Your task to perform on an android device: allow notifications from all sites in the chrome app Image 0: 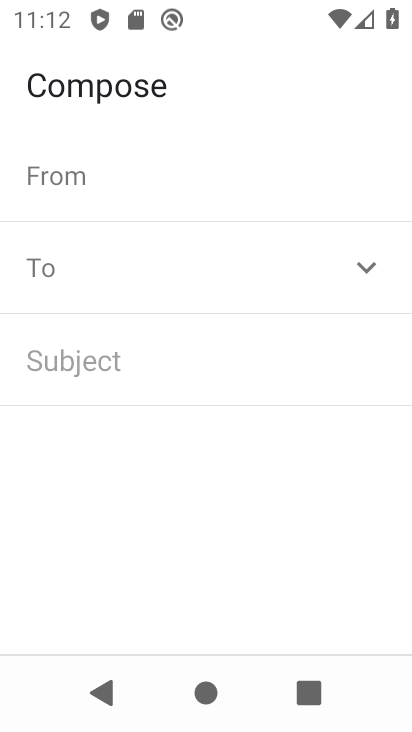
Step 0: drag from (195, 404) to (211, 156)
Your task to perform on an android device: allow notifications from all sites in the chrome app Image 1: 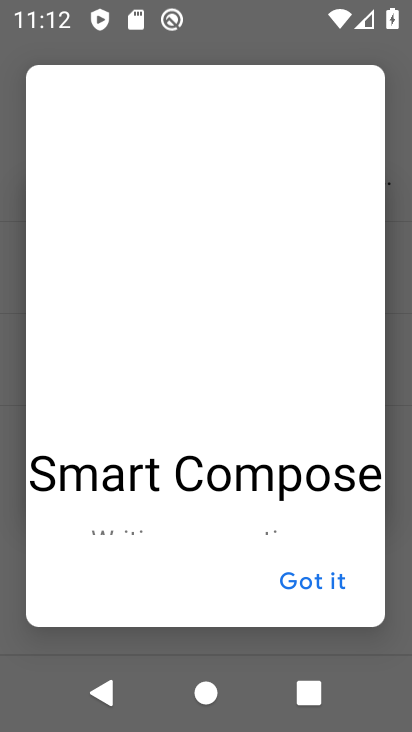
Step 1: press home button
Your task to perform on an android device: allow notifications from all sites in the chrome app Image 2: 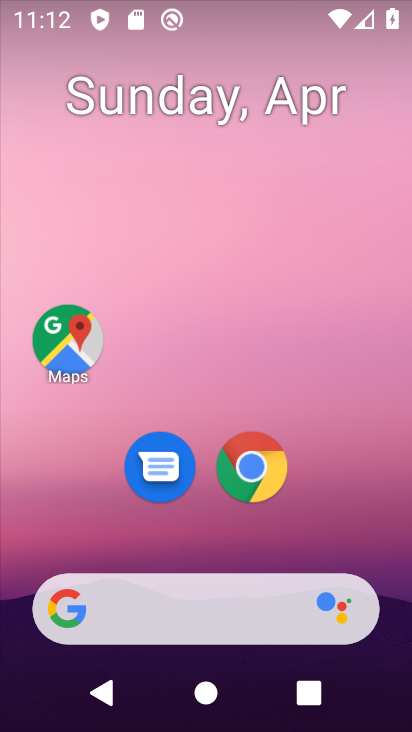
Step 2: drag from (210, 485) to (257, 234)
Your task to perform on an android device: allow notifications from all sites in the chrome app Image 3: 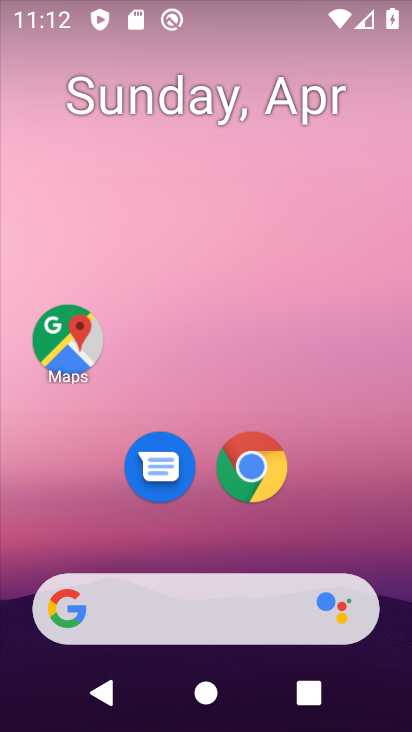
Step 3: drag from (205, 424) to (205, 330)
Your task to perform on an android device: allow notifications from all sites in the chrome app Image 4: 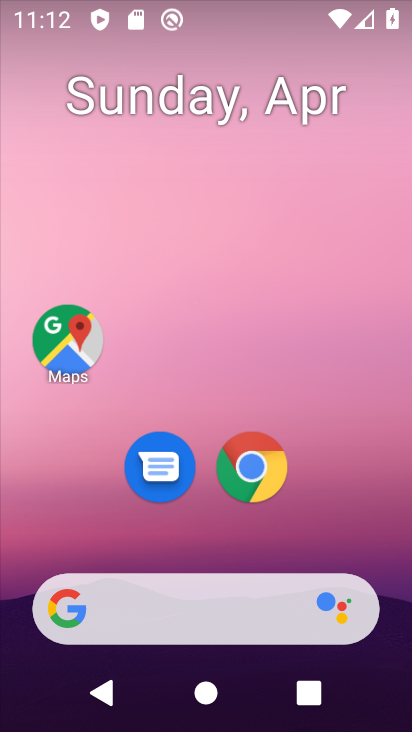
Step 4: drag from (190, 506) to (204, 161)
Your task to perform on an android device: allow notifications from all sites in the chrome app Image 5: 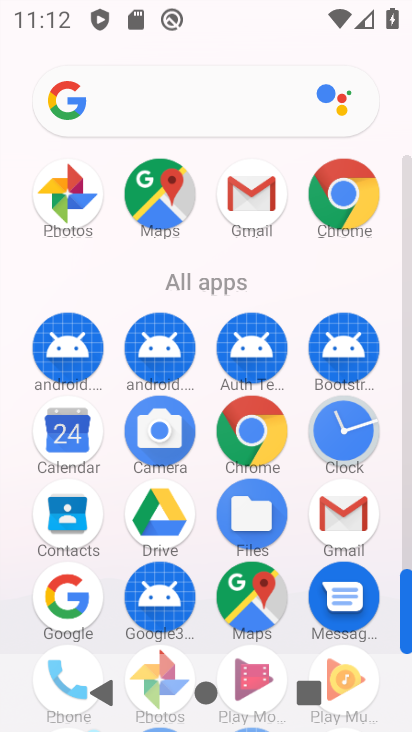
Step 5: drag from (201, 644) to (156, 232)
Your task to perform on an android device: allow notifications from all sites in the chrome app Image 6: 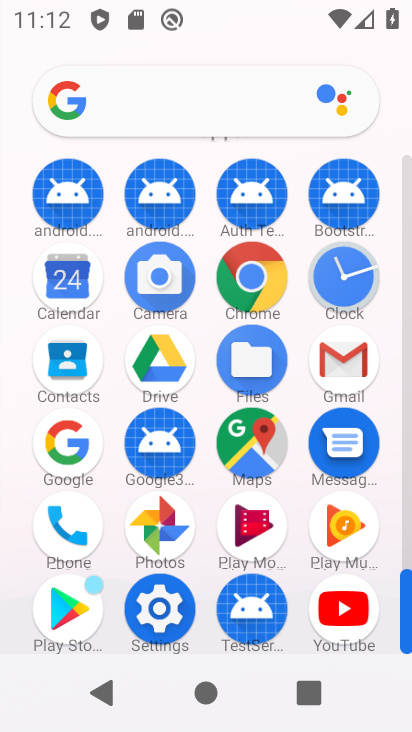
Step 6: click (250, 279)
Your task to perform on an android device: allow notifications from all sites in the chrome app Image 7: 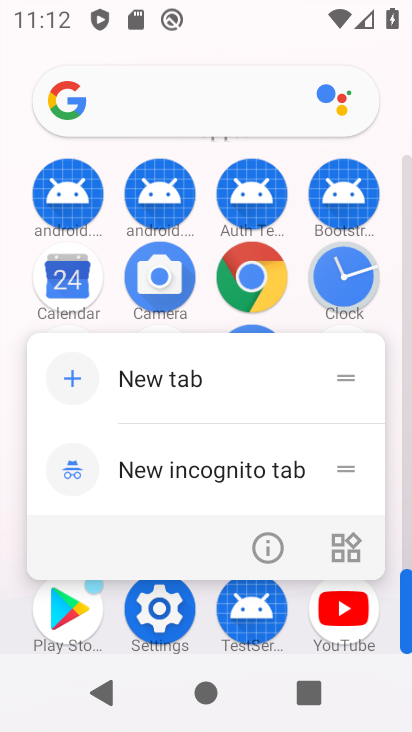
Step 7: click (265, 561)
Your task to perform on an android device: allow notifications from all sites in the chrome app Image 8: 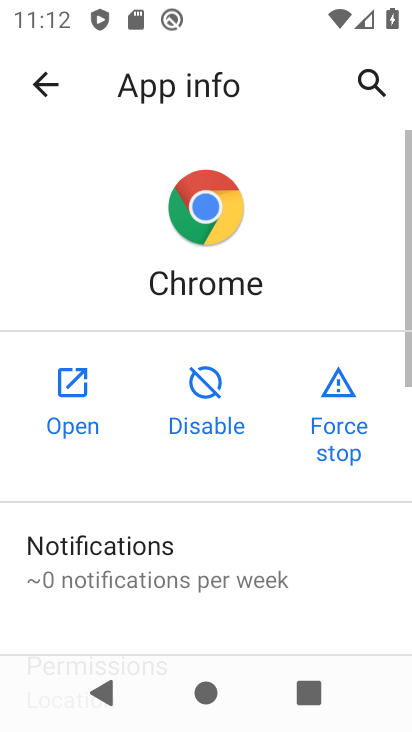
Step 8: click (80, 390)
Your task to perform on an android device: allow notifications from all sites in the chrome app Image 9: 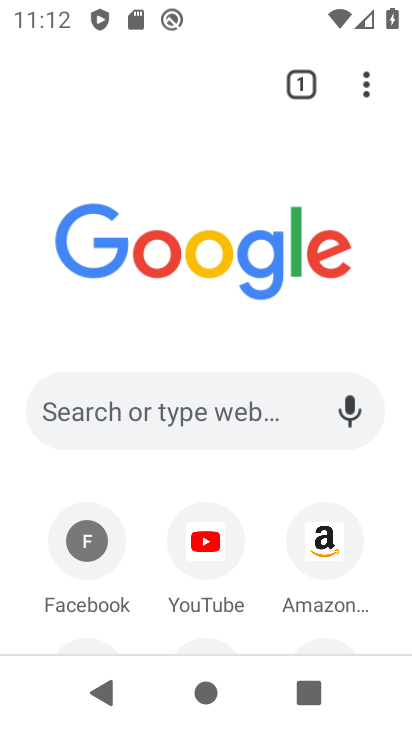
Step 9: drag from (230, 509) to (246, 220)
Your task to perform on an android device: allow notifications from all sites in the chrome app Image 10: 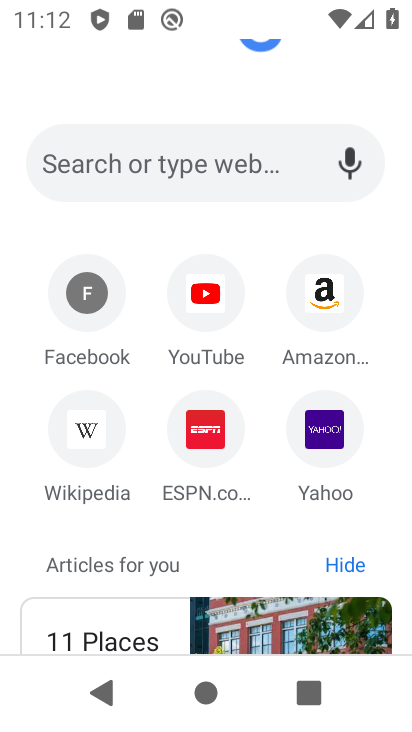
Step 10: drag from (260, 514) to (264, 216)
Your task to perform on an android device: allow notifications from all sites in the chrome app Image 11: 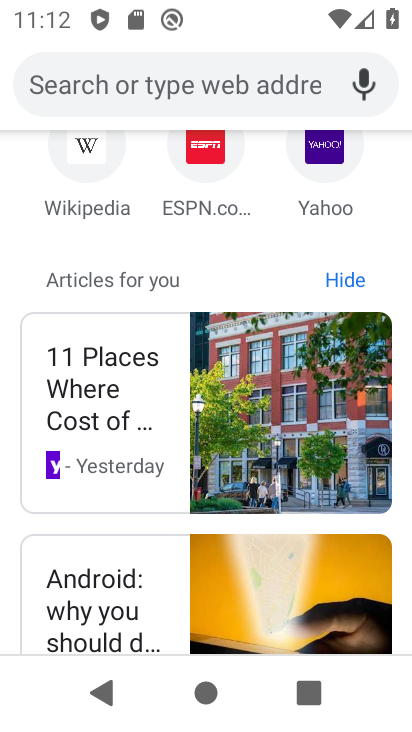
Step 11: drag from (252, 197) to (276, 540)
Your task to perform on an android device: allow notifications from all sites in the chrome app Image 12: 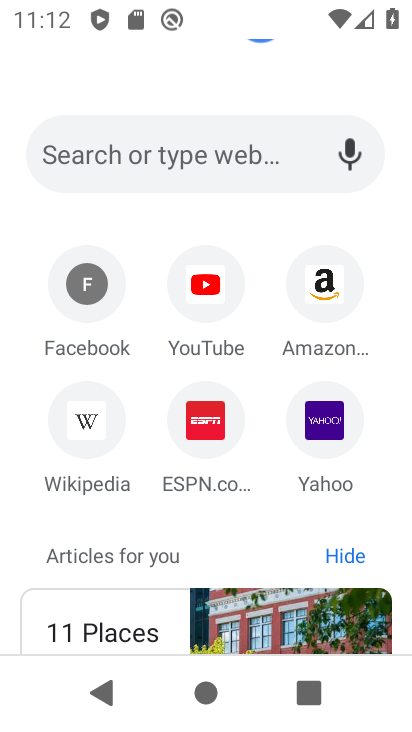
Step 12: drag from (268, 233) to (293, 502)
Your task to perform on an android device: allow notifications from all sites in the chrome app Image 13: 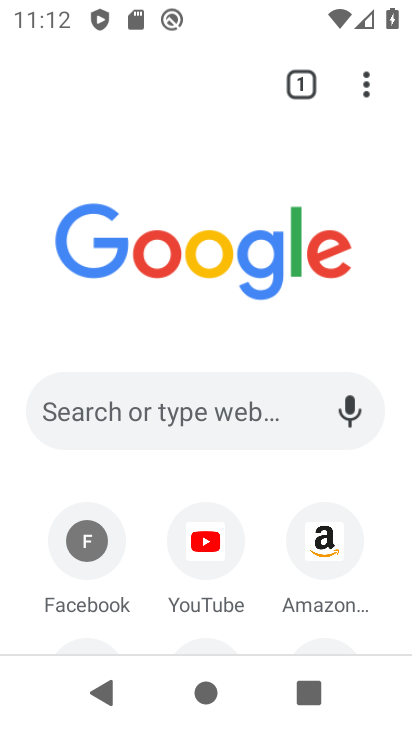
Step 13: drag from (362, 78) to (253, 511)
Your task to perform on an android device: allow notifications from all sites in the chrome app Image 14: 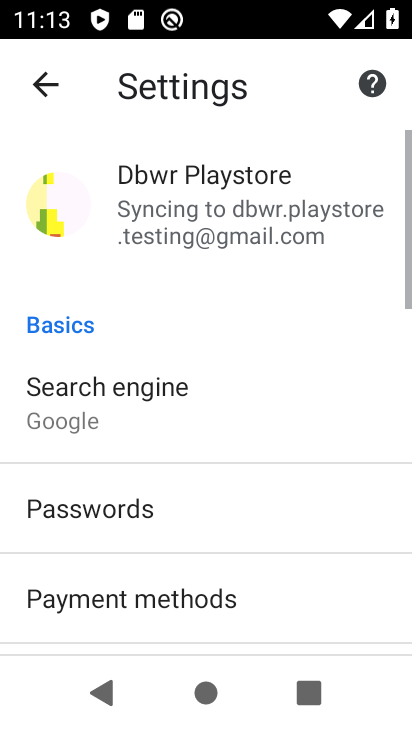
Step 14: drag from (226, 517) to (237, 116)
Your task to perform on an android device: allow notifications from all sites in the chrome app Image 15: 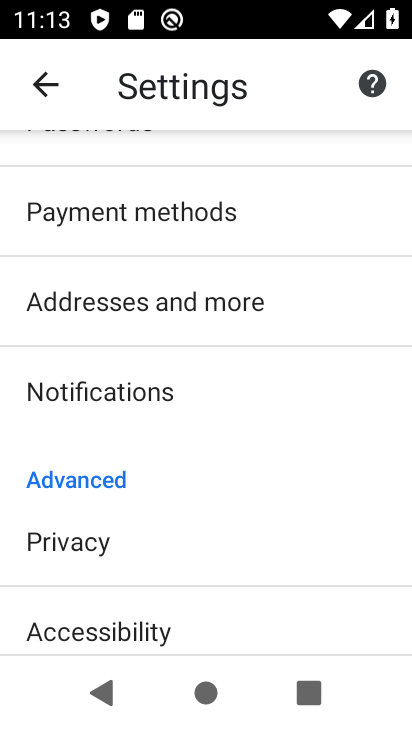
Step 15: click (139, 379)
Your task to perform on an android device: allow notifications from all sites in the chrome app Image 16: 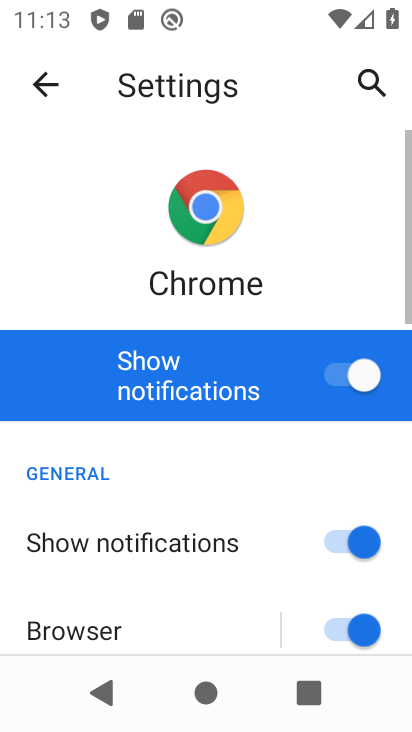
Step 16: drag from (185, 622) to (211, 169)
Your task to perform on an android device: allow notifications from all sites in the chrome app Image 17: 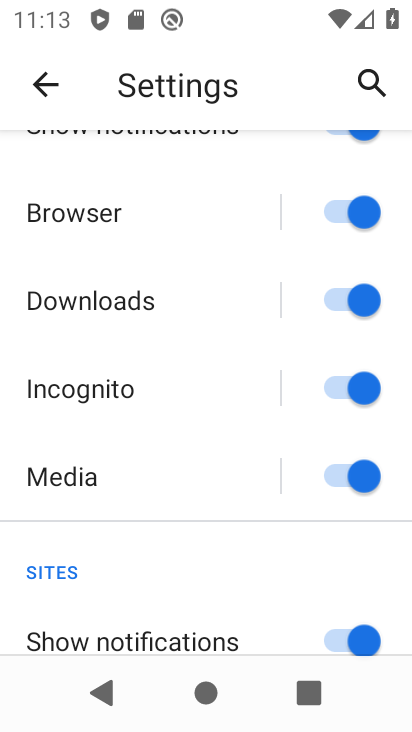
Step 17: drag from (170, 611) to (177, 208)
Your task to perform on an android device: allow notifications from all sites in the chrome app Image 18: 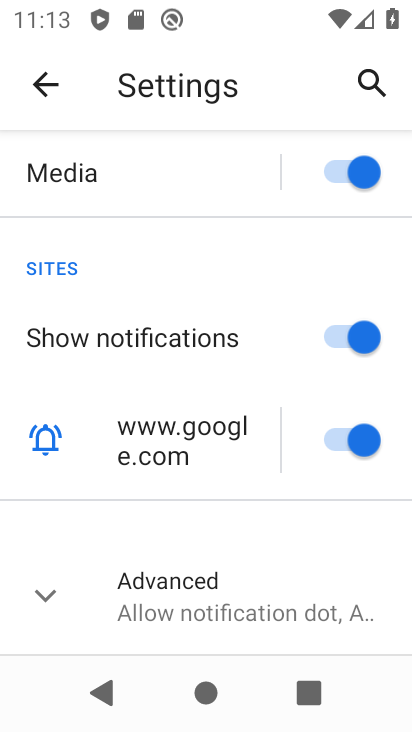
Step 18: click (170, 587)
Your task to perform on an android device: allow notifications from all sites in the chrome app Image 19: 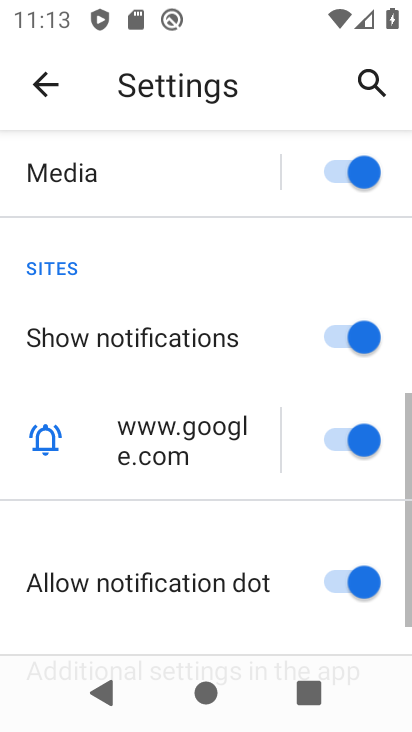
Step 19: task complete